Your task to perform on an android device: turn on the 12-hour format for clock Image 0: 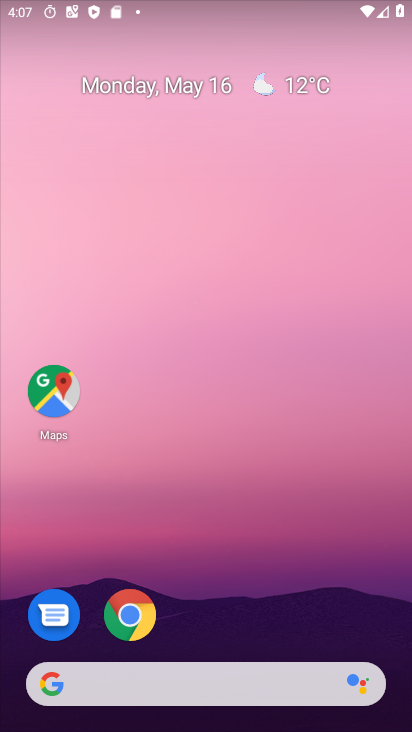
Step 0: click (116, 73)
Your task to perform on an android device: turn on the 12-hour format for clock Image 1: 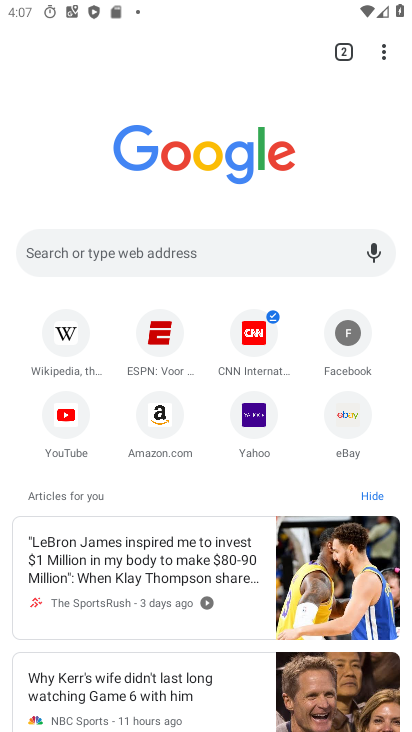
Step 1: drag from (347, 534) to (99, 32)
Your task to perform on an android device: turn on the 12-hour format for clock Image 2: 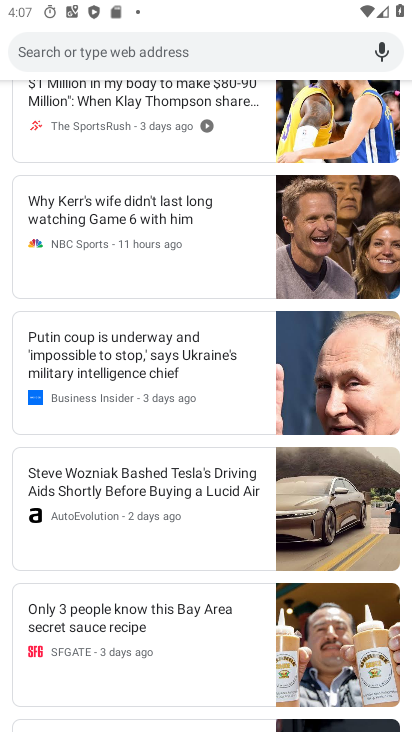
Step 2: press back button
Your task to perform on an android device: turn on the 12-hour format for clock Image 3: 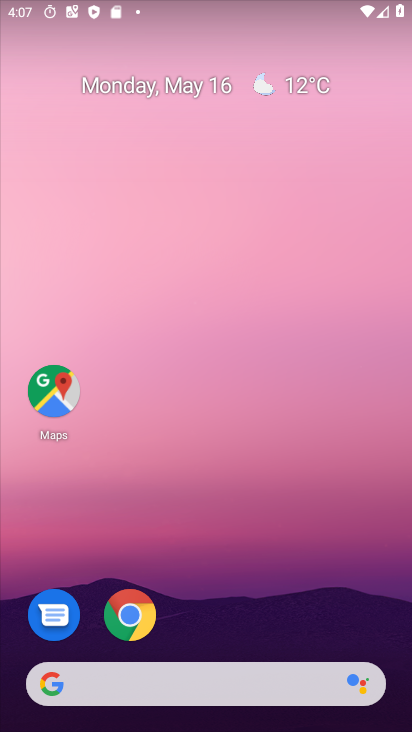
Step 3: drag from (279, 611) to (77, 191)
Your task to perform on an android device: turn on the 12-hour format for clock Image 4: 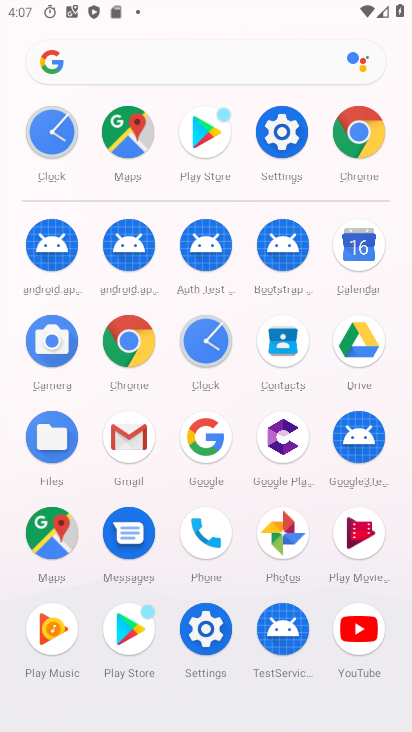
Step 4: click (209, 340)
Your task to perform on an android device: turn on the 12-hour format for clock Image 5: 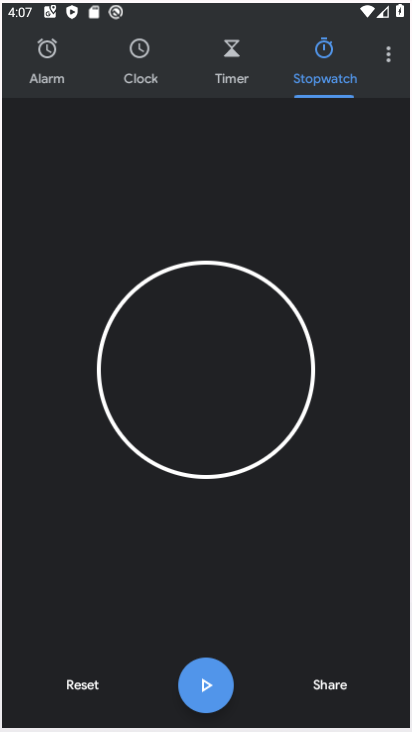
Step 5: click (214, 351)
Your task to perform on an android device: turn on the 12-hour format for clock Image 6: 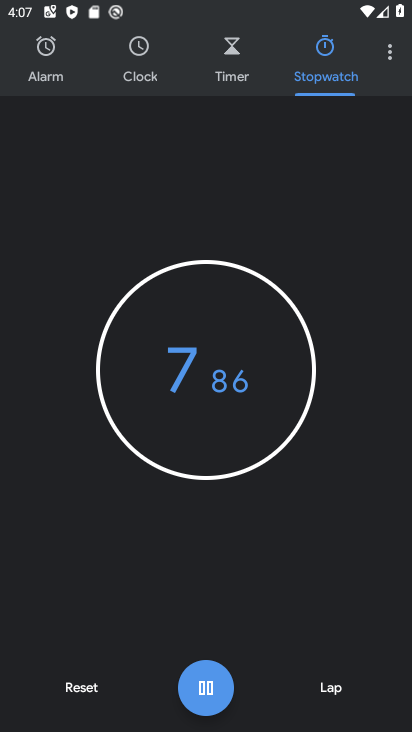
Step 6: click (200, 677)
Your task to perform on an android device: turn on the 12-hour format for clock Image 7: 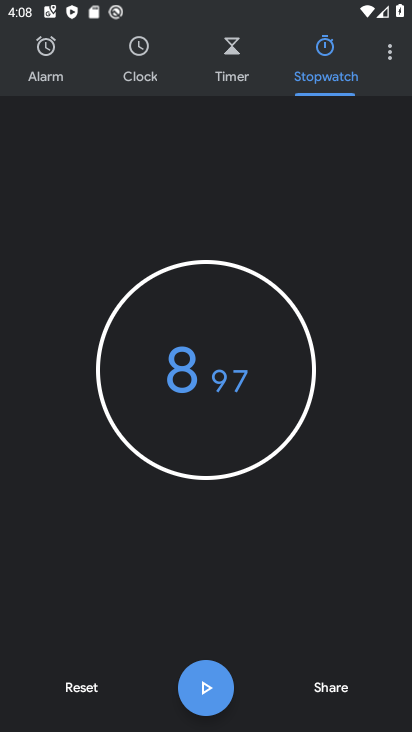
Step 7: click (387, 53)
Your task to perform on an android device: turn on the 12-hour format for clock Image 8: 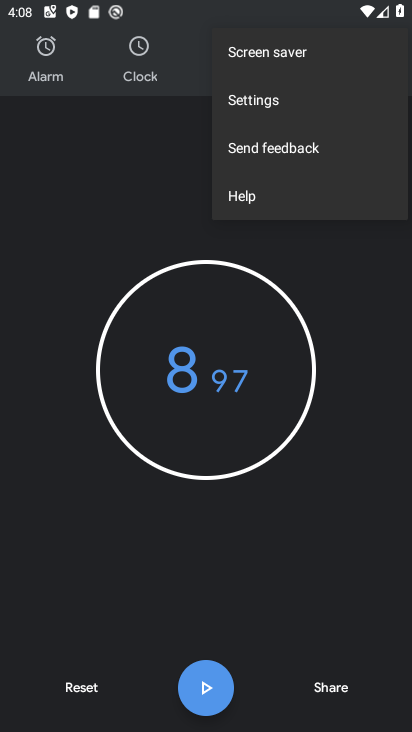
Step 8: click (388, 54)
Your task to perform on an android device: turn on the 12-hour format for clock Image 9: 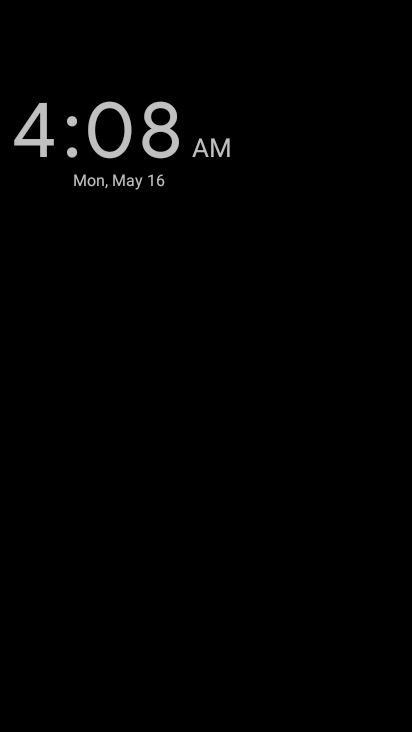
Step 9: press back button
Your task to perform on an android device: turn on the 12-hour format for clock Image 10: 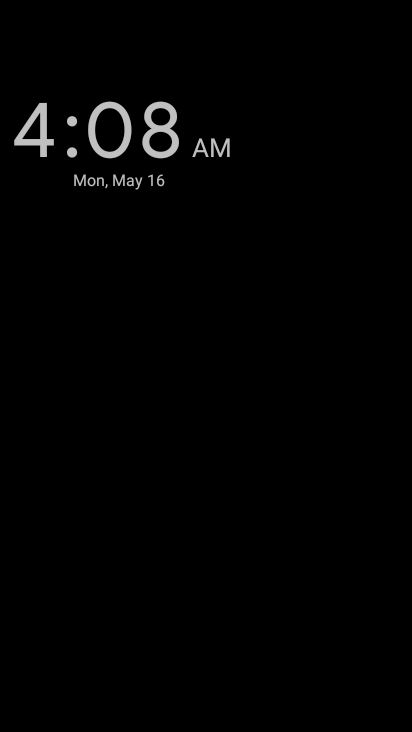
Step 10: press back button
Your task to perform on an android device: turn on the 12-hour format for clock Image 11: 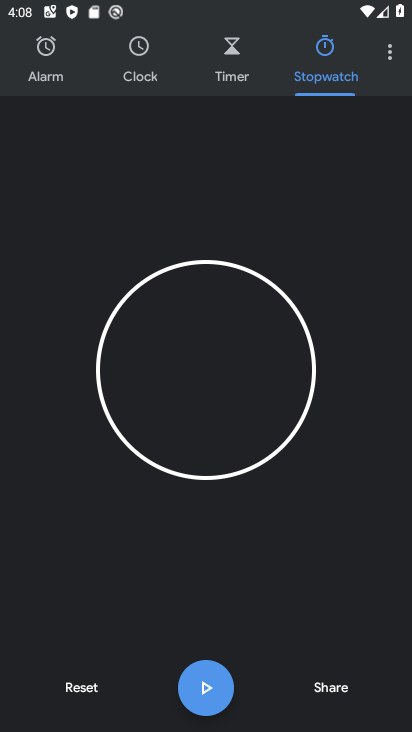
Step 11: press back button
Your task to perform on an android device: turn on the 12-hour format for clock Image 12: 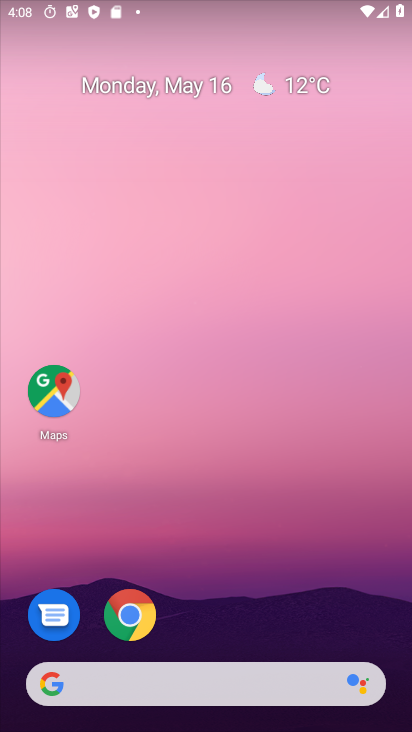
Step 12: drag from (248, 569) to (183, 84)
Your task to perform on an android device: turn on the 12-hour format for clock Image 13: 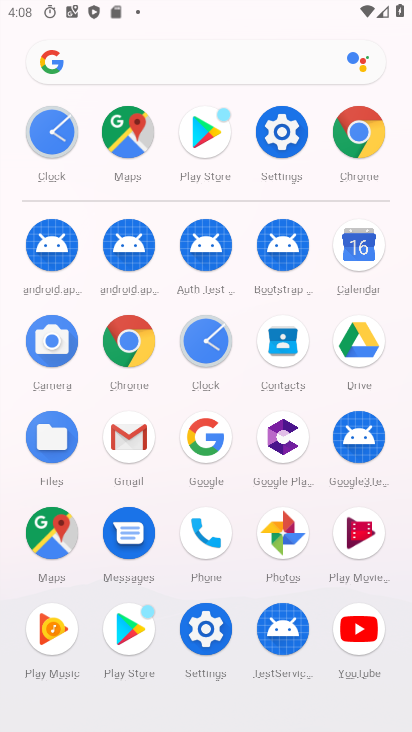
Step 13: click (215, 343)
Your task to perform on an android device: turn on the 12-hour format for clock Image 14: 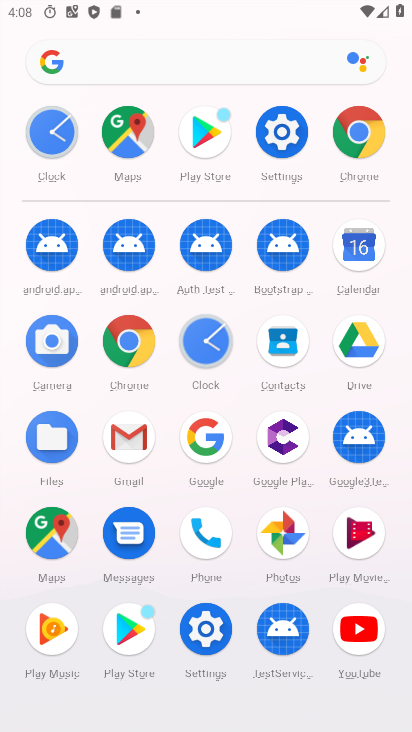
Step 14: click (215, 343)
Your task to perform on an android device: turn on the 12-hour format for clock Image 15: 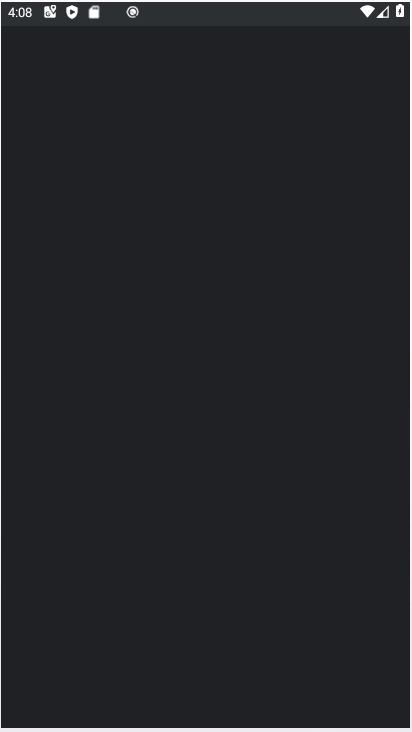
Step 15: click (215, 343)
Your task to perform on an android device: turn on the 12-hour format for clock Image 16: 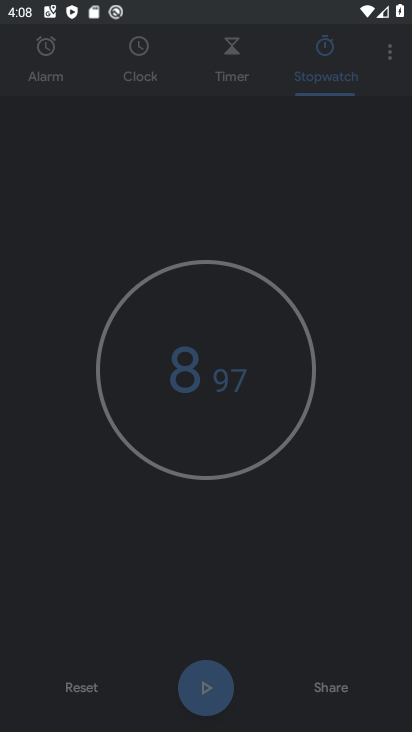
Step 16: click (214, 344)
Your task to perform on an android device: turn on the 12-hour format for clock Image 17: 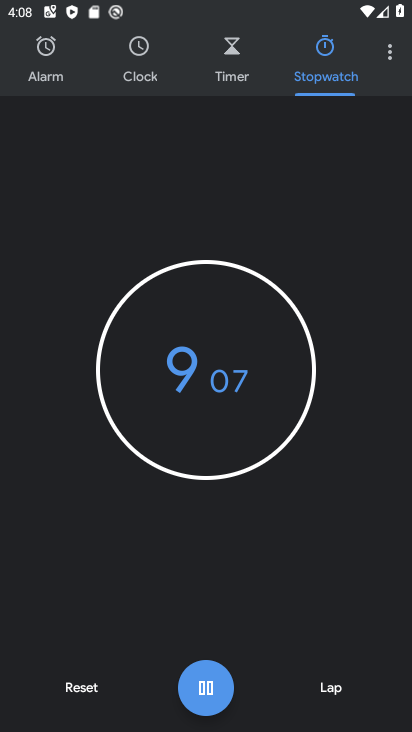
Step 17: click (214, 345)
Your task to perform on an android device: turn on the 12-hour format for clock Image 18: 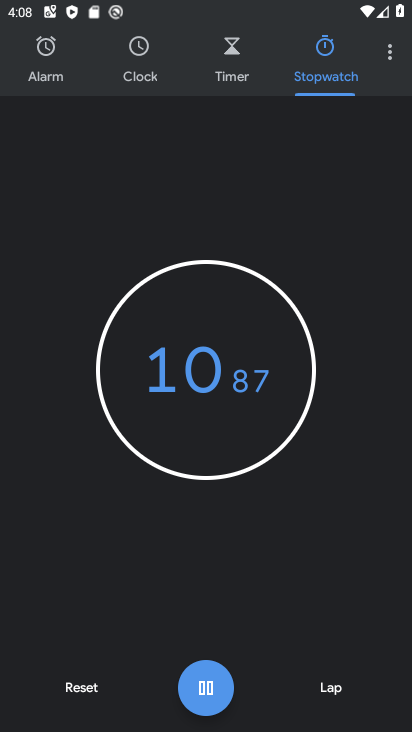
Step 18: click (392, 53)
Your task to perform on an android device: turn on the 12-hour format for clock Image 19: 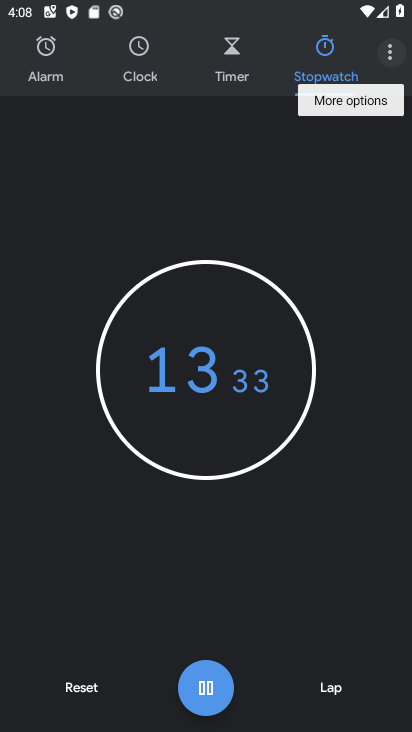
Step 19: click (392, 54)
Your task to perform on an android device: turn on the 12-hour format for clock Image 20: 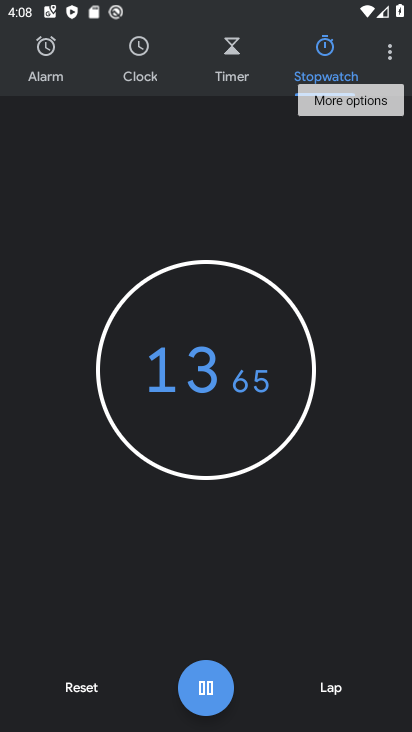
Step 20: click (392, 54)
Your task to perform on an android device: turn on the 12-hour format for clock Image 21: 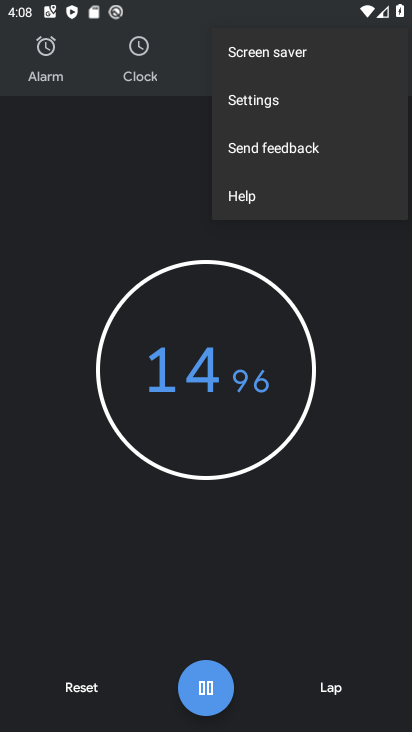
Step 21: click (203, 695)
Your task to perform on an android device: turn on the 12-hour format for clock Image 22: 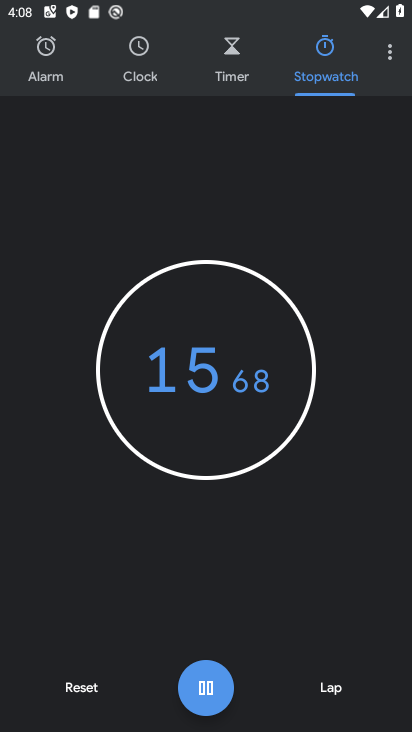
Step 22: click (202, 698)
Your task to perform on an android device: turn on the 12-hour format for clock Image 23: 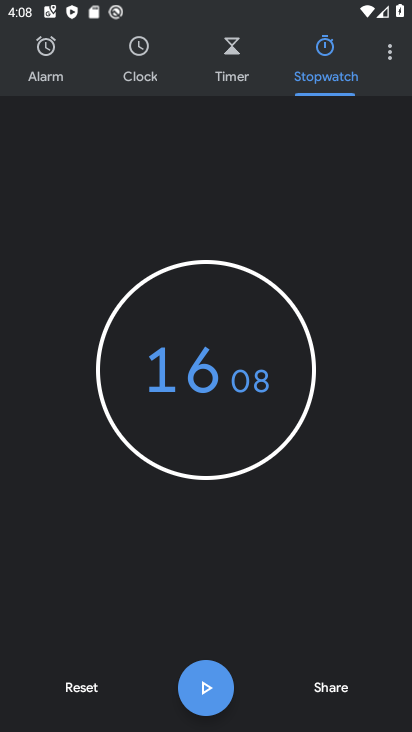
Step 23: click (386, 58)
Your task to perform on an android device: turn on the 12-hour format for clock Image 24: 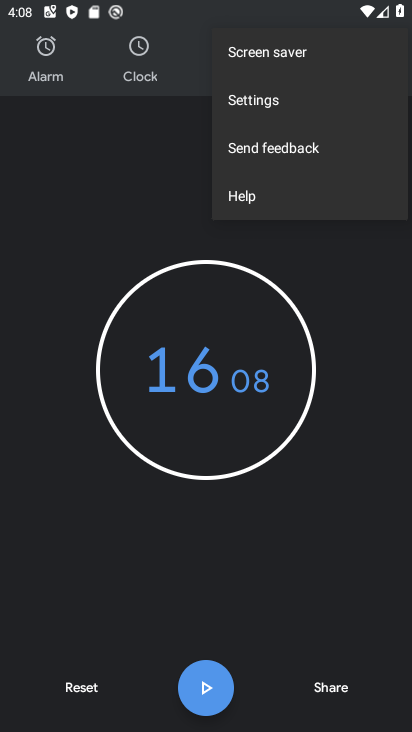
Step 24: click (267, 99)
Your task to perform on an android device: turn on the 12-hour format for clock Image 25: 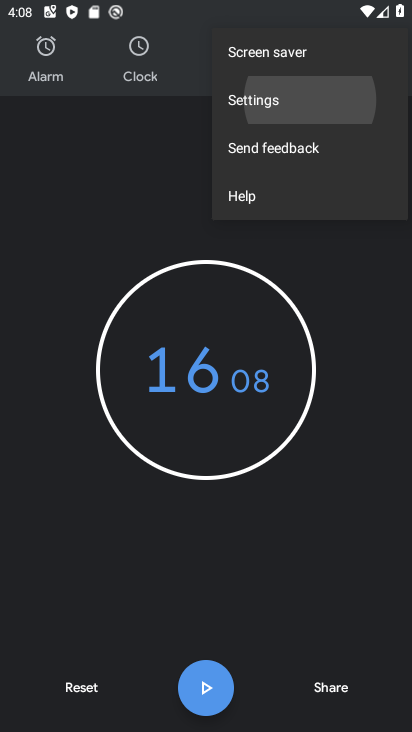
Step 25: click (266, 100)
Your task to perform on an android device: turn on the 12-hour format for clock Image 26: 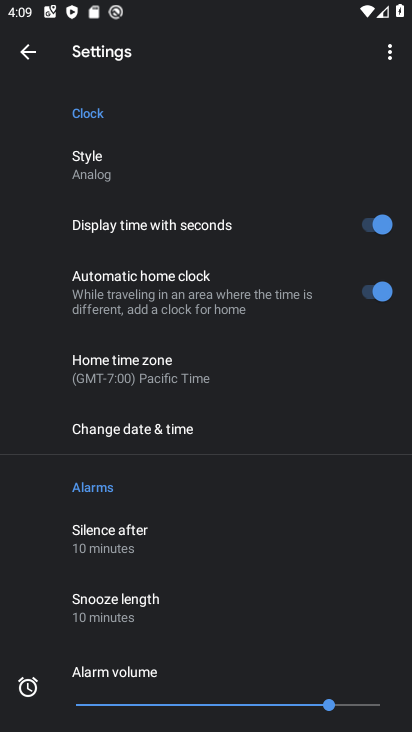
Step 26: click (115, 425)
Your task to perform on an android device: turn on the 12-hour format for clock Image 27: 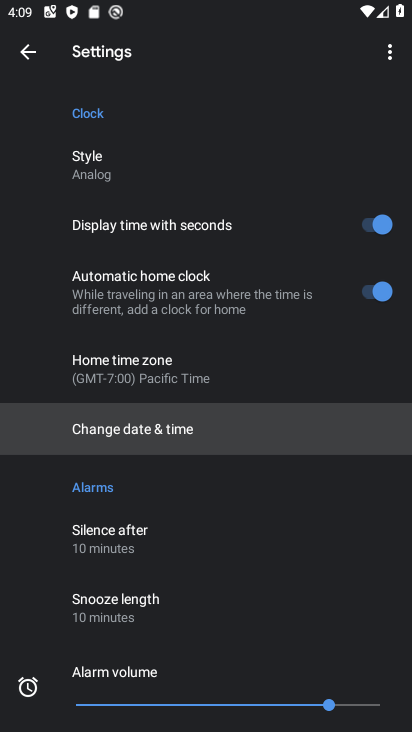
Step 27: click (115, 426)
Your task to perform on an android device: turn on the 12-hour format for clock Image 28: 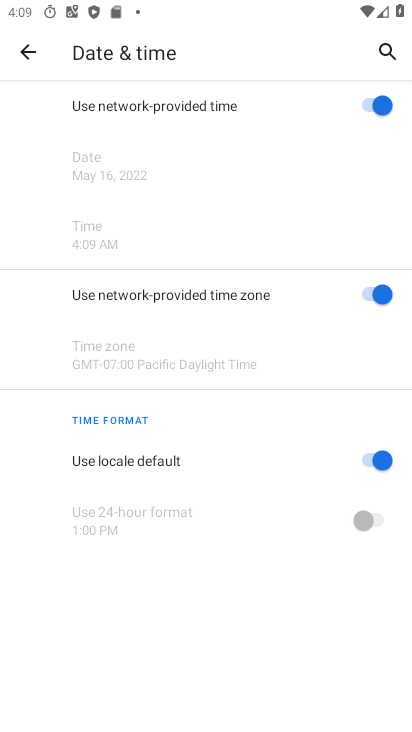
Step 28: click (388, 466)
Your task to perform on an android device: turn on the 12-hour format for clock Image 29: 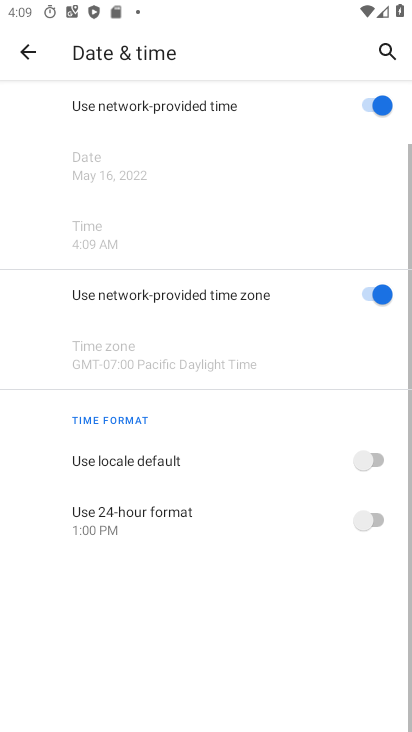
Step 29: click (365, 515)
Your task to perform on an android device: turn on the 12-hour format for clock Image 30: 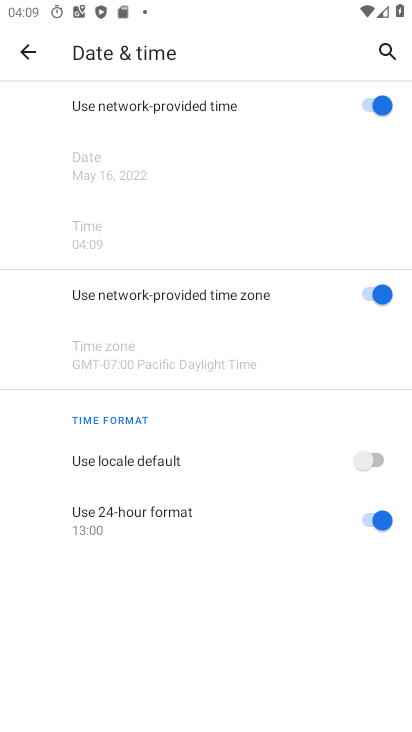
Step 30: task complete